Your task to perform on an android device: show emergency info Image 0: 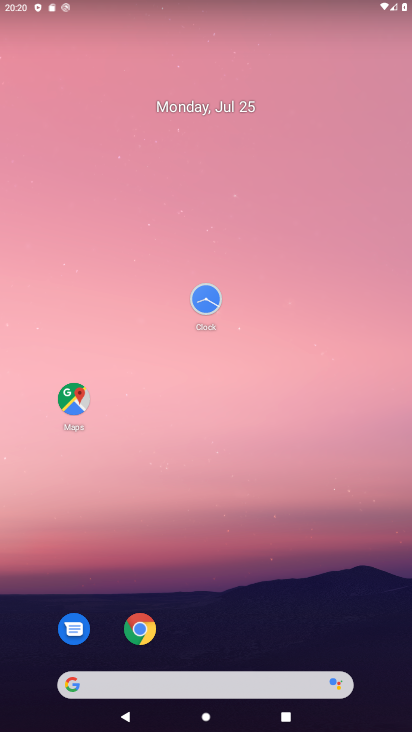
Step 0: drag from (199, 659) to (257, 82)
Your task to perform on an android device: show emergency info Image 1: 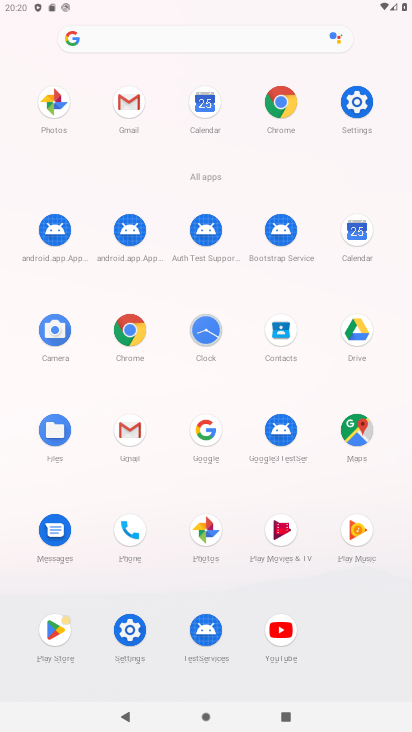
Step 1: click (126, 645)
Your task to perform on an android device: show emergency info Image 2: 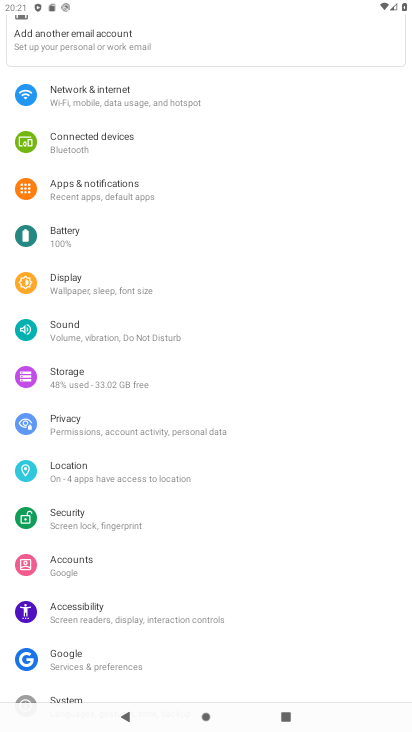
Step 2: drag from (89, 695) to (99, 437)
Your task to perform on an android device: show emergency info Image 3: 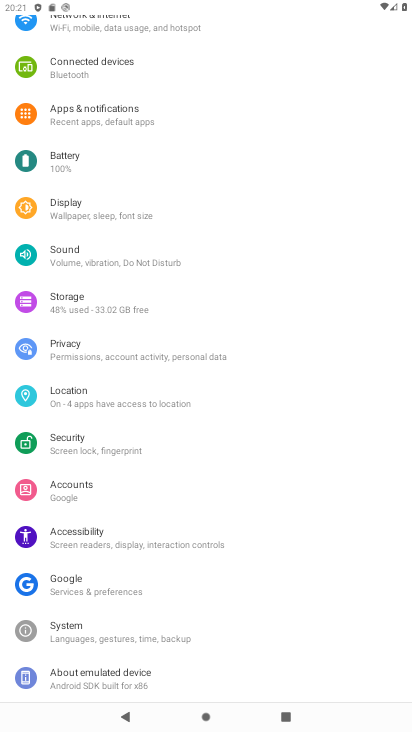
Step 3: click (104, 673)
Your task to perform on an android device: show emergency info Image 4: 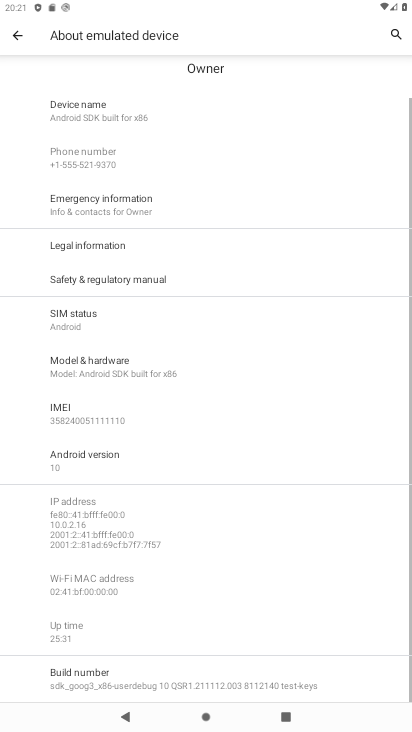
Step 4: click (125, 214)
Your task to perform on an android device: show emergency info Image 5: 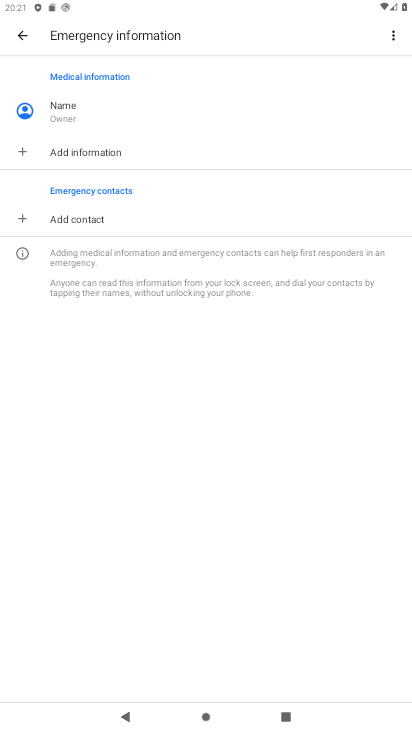
Step 5: task complete